Your task to perform on an android device: turn on the 24-hour format for clock Image 0: 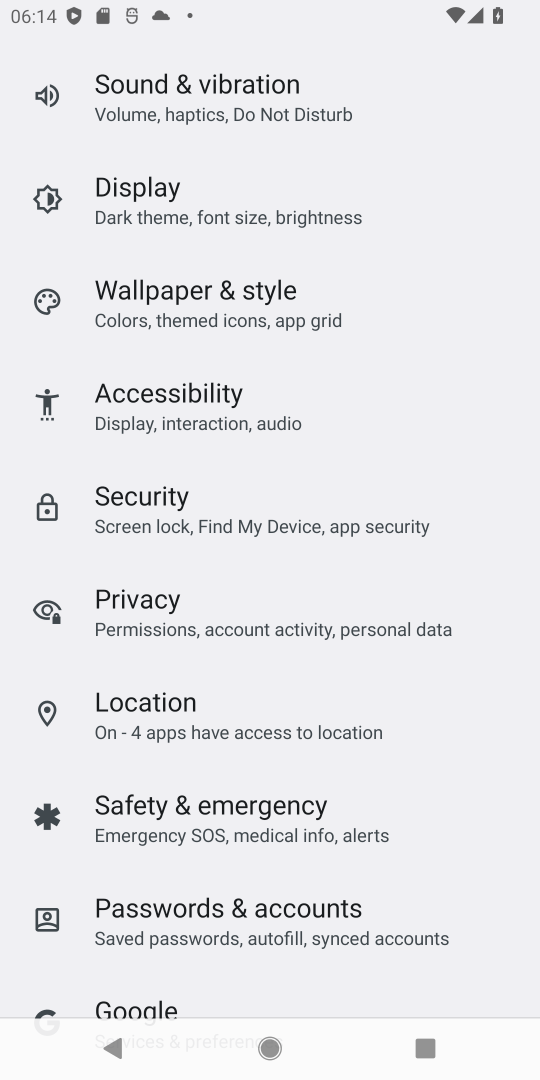
Step 0: press home button
Your task to perform on an android device: turn on the 24-hour format for clock Image 1: 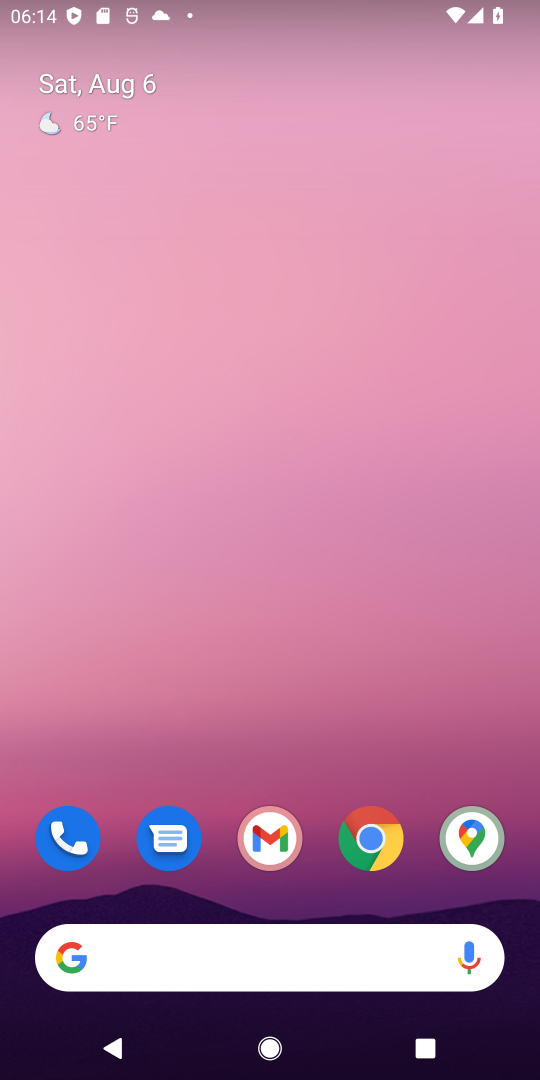
Step 1: drag from (382, 759) to (302, 7)
Your task to perform on an android device: turn on the 24-hour format for clock Image 2: 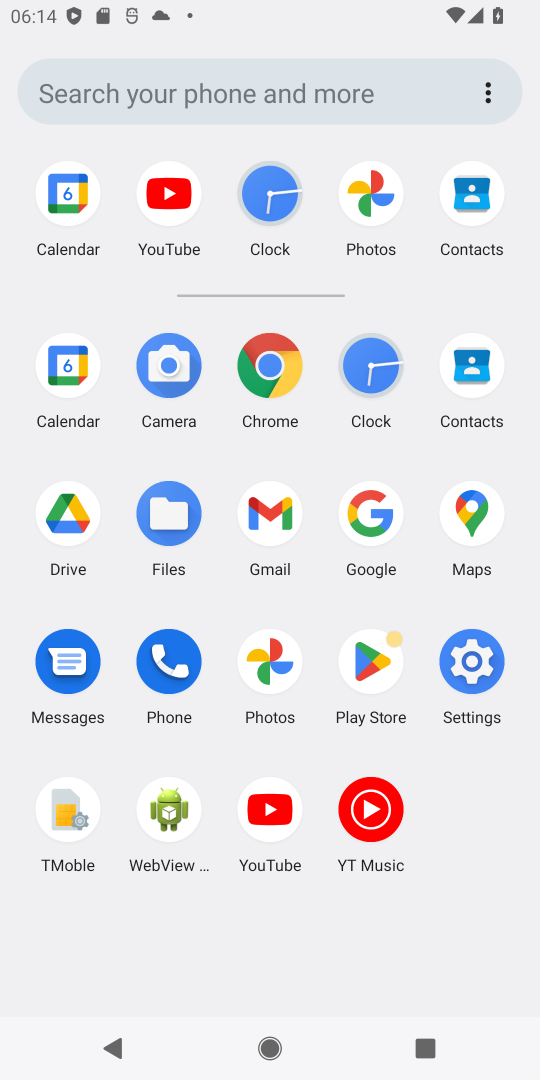
Step 2: click (361, 389)
Your task to perform on an android device: turn on the 24-hour format for clock Image 3: 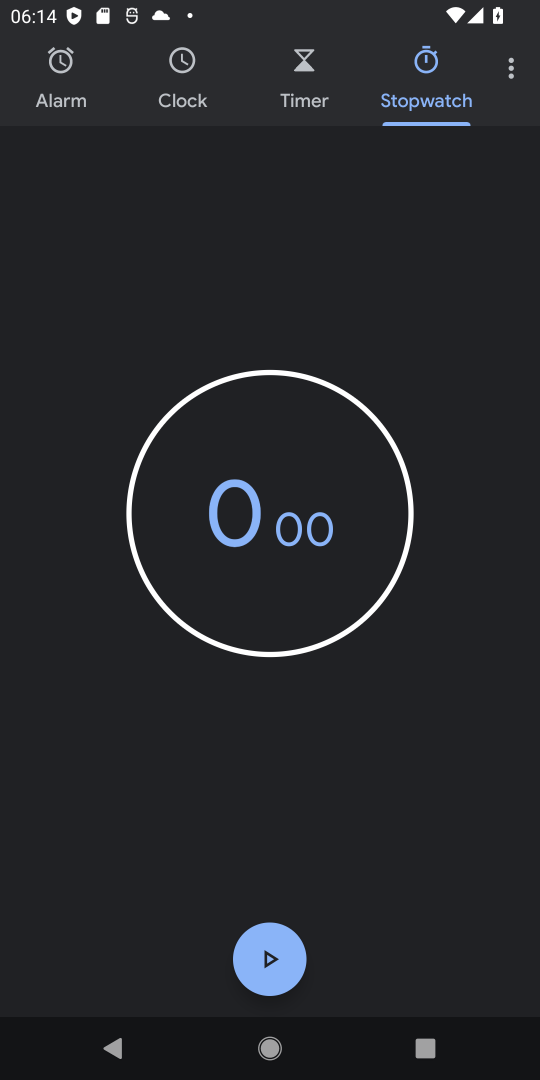
Step 3: click (513, 69)
Your task to perform on an android device: turn on the 24-hour format for clock Image 4: 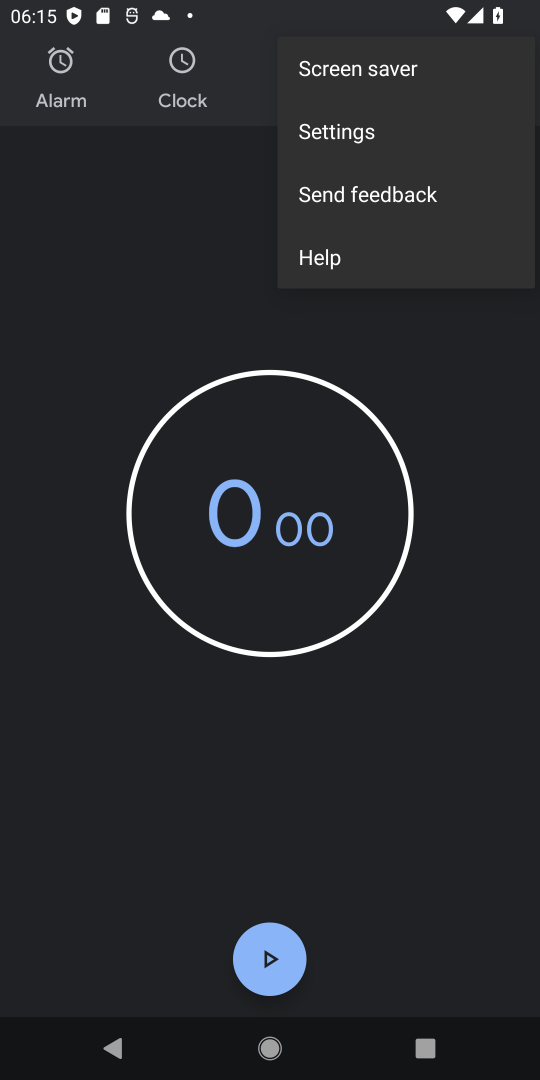
Step 4: click (396, 153)
Your task to perform on an android device: turn on the 24-hour format for clock Image 5: 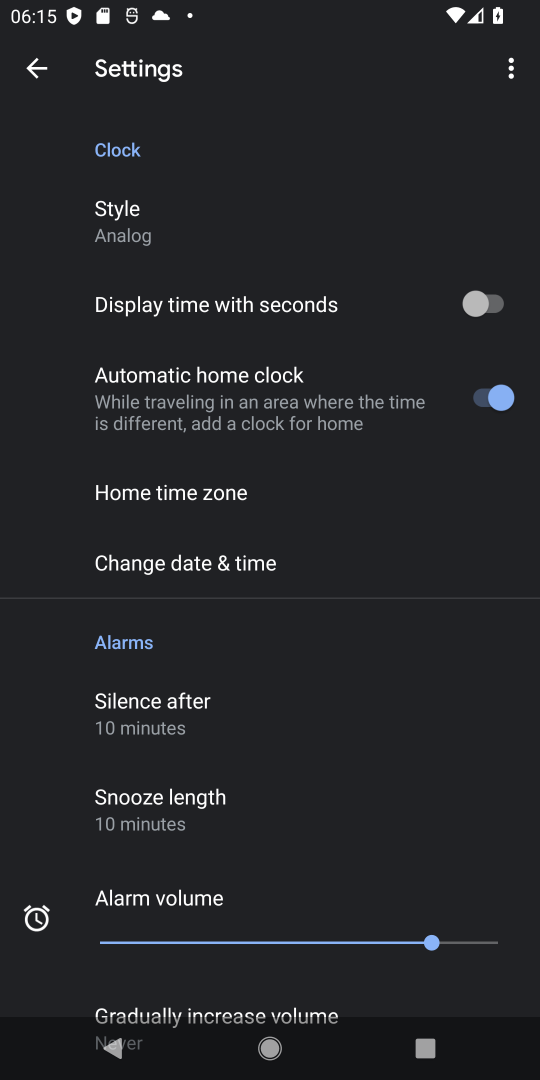
Step 5: click (258, 568)
Your task to perform on an android device: turn on the 24-hour format for clock Image 6: 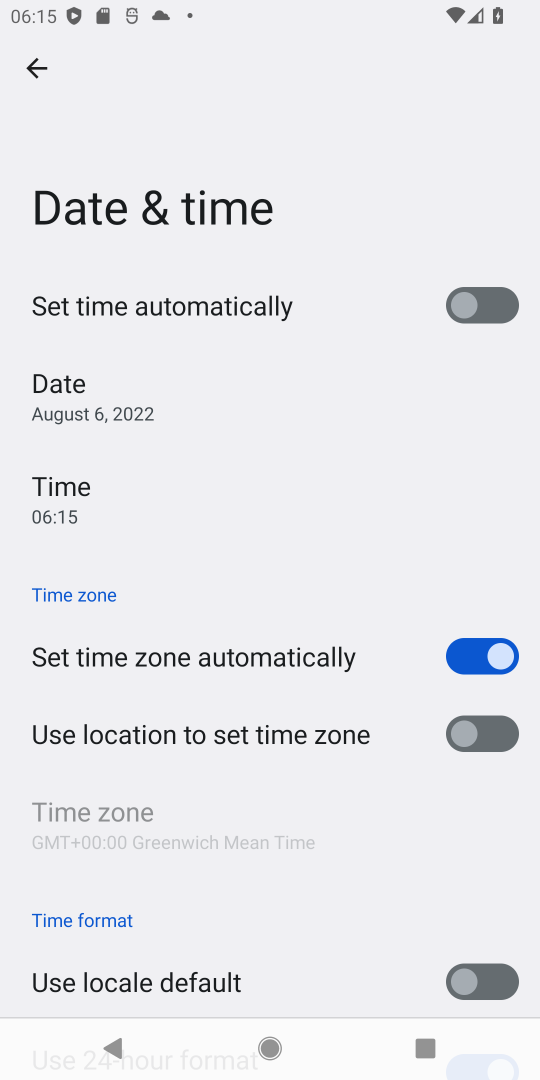
Step 6: task complete